Your task to perform on an android device: Go to notification settings Image 0: 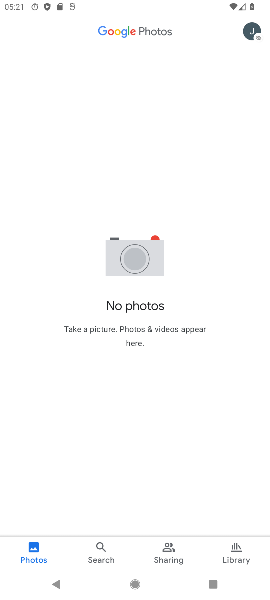
Step 0: press home button
Your task to perform on an android device: Go to notification settings Image 1: 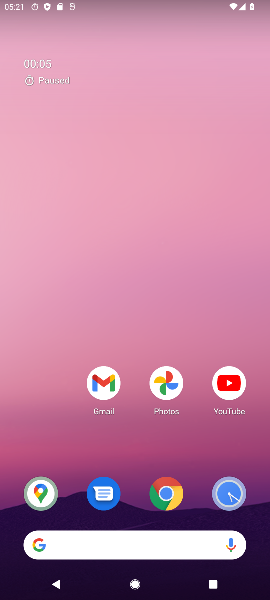
Step 1: drag from (48, 569) to (233, 74)
Your task to perform on an android device: Go to notification settings Image 2: 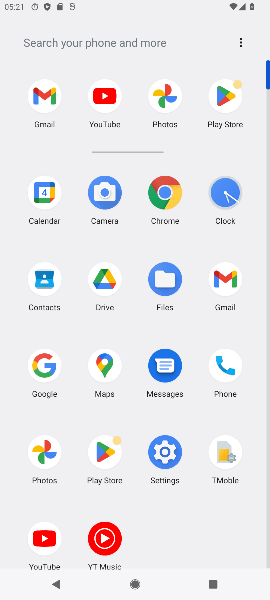
Step 2: click (174, 457)
Your task to perform on an android device: Go to notification settings Image 3: 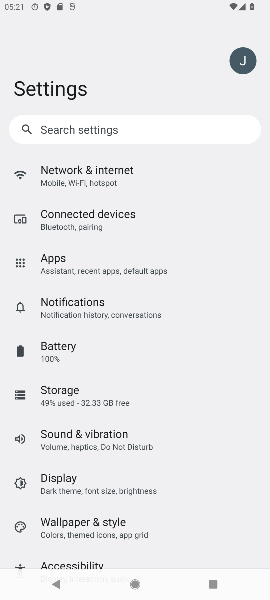
Step 3: click (92, 300)
Your task to perform on an android device: Go to notification settings Image 4: 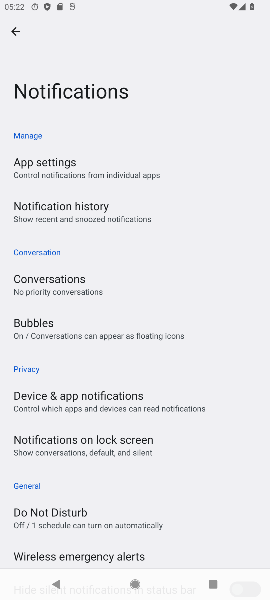
Step 4: task complete